Your task to perform on an android device: Check the weather Image 0: 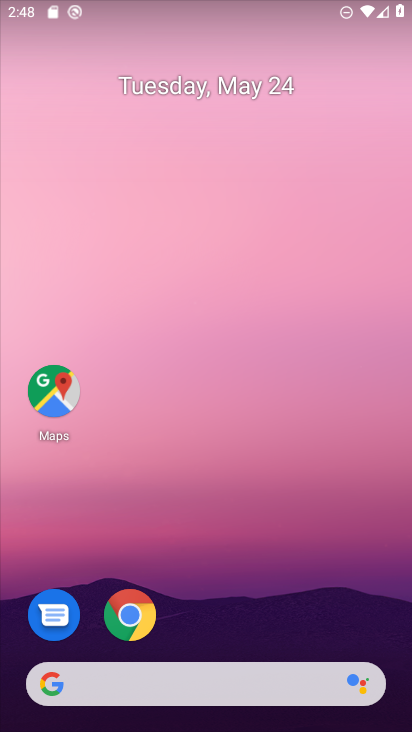
Step 0: drag from (252, 572) to (316, 247)
Your task to perform on an android device: Check the weather Image 1: 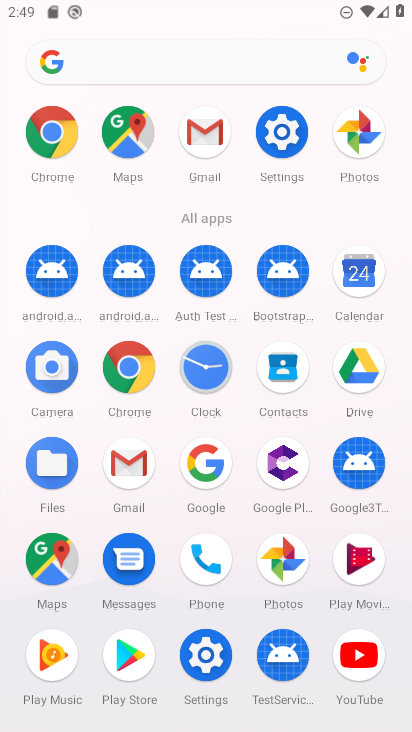
Step 1: click (205, 488)
Your task to perform on an android device: Check the weather Image 2: 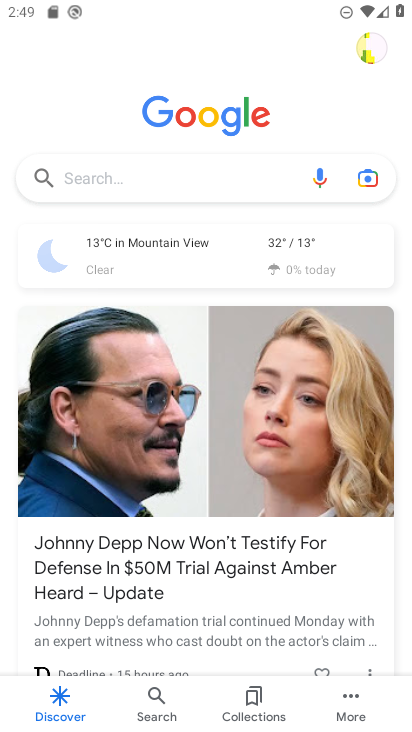
Step 2: click (203, 184)
Your task to perform on an android device: Check the weather Image 3: 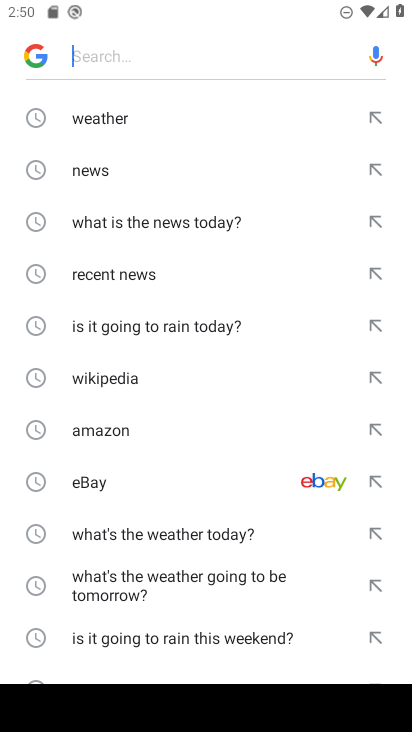
Step 3: click (176, 113)
Your task to perform on an android device: Check the weather Image 4: 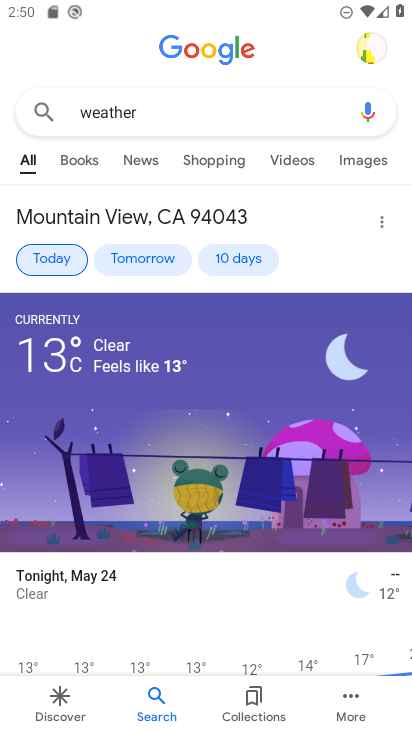
Step 4: task complete